Your task to perform on an android device: change keyboard looks Image 0: 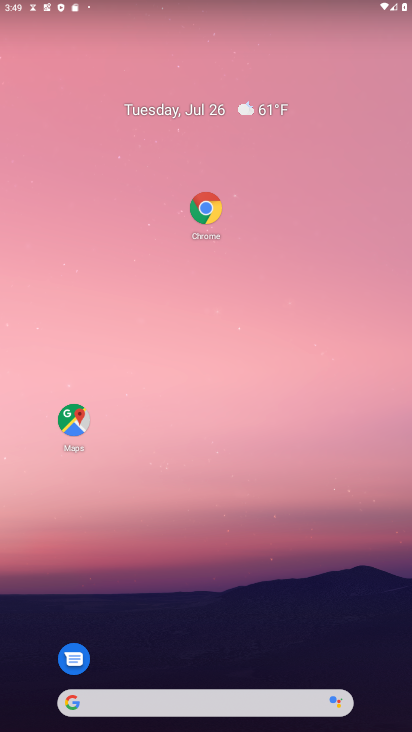
Step 0: drag from (189, 376) to (184, 57)
Your task to perform on an android device: change keyboard looks Image 1: 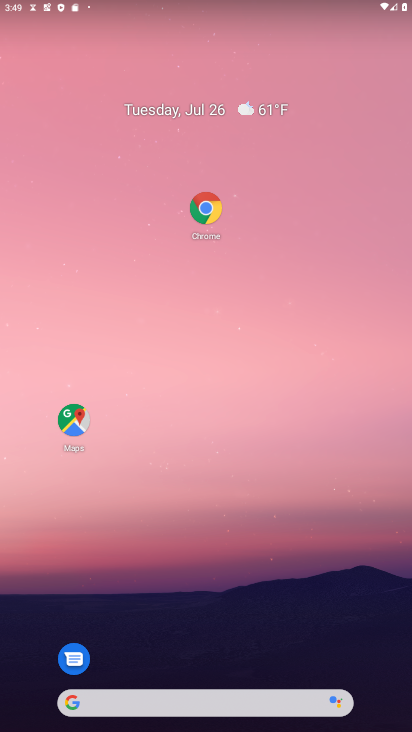
Step 1: drag from (175, 586) to (167, 144)
Your task to perform on an android device: change keyboard looks Image 2: 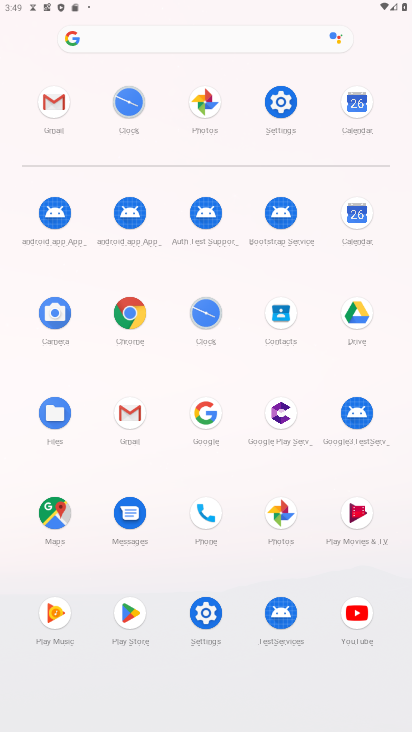
Step 2: click (277, 106)
Your task to perform on an android device: change keyboard looks Image 3: 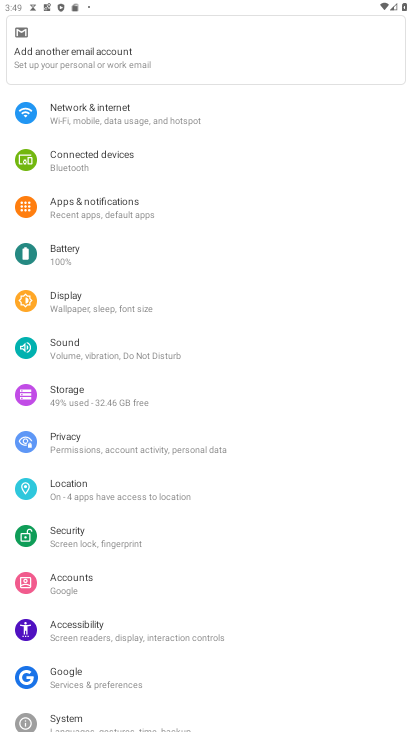
Step 3: click (3, 475)
Your task to perform on an android device: change keyboard looks Image 4: 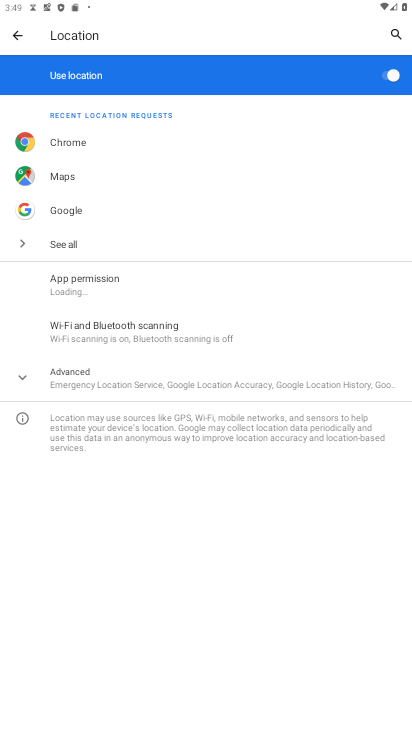
Step 4: click (25, 46)
Your task to perform on an android device: change keyboard looks Image 5: 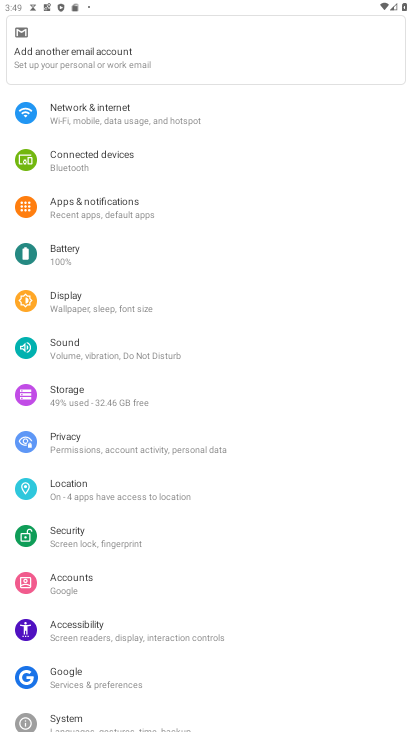
Step 5: click (65, 705)
Your task to perform on an android device: change keyboard looks Image 6: 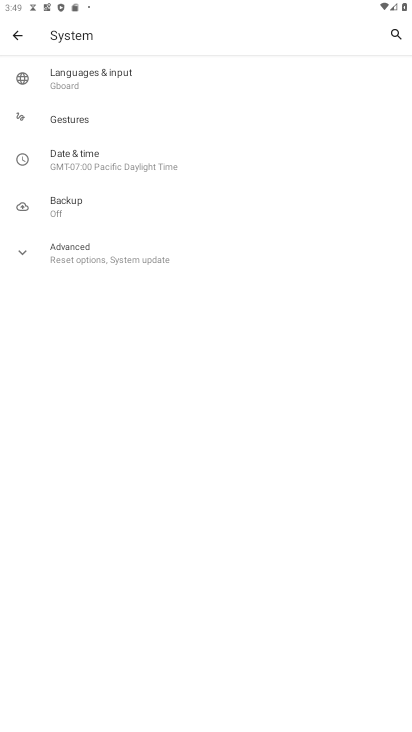
Step 6: click (20, 31)
Your task to perform on an android device: change keyboard looks Image 7: 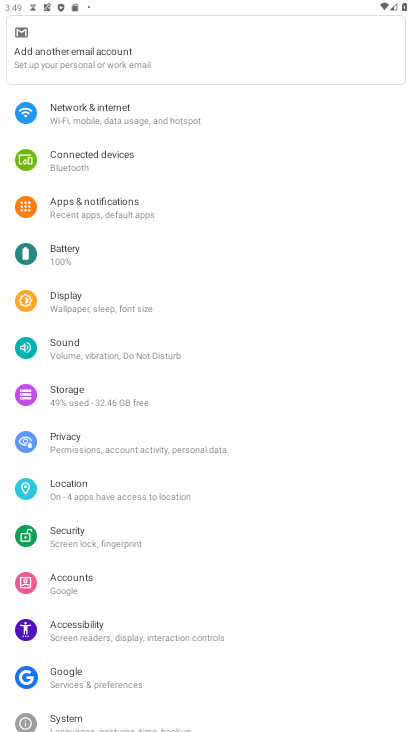
Step 7: click (131, 672)
Your task to perform on an android device: change keyboard looks Image 8: 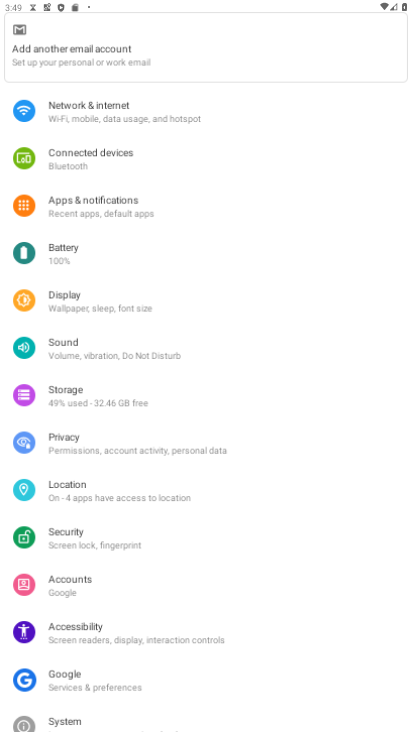
Step 8: drag from (128, 652) to (115, 164)
Your task to perform on an android device: change keyboard looks Image 9: 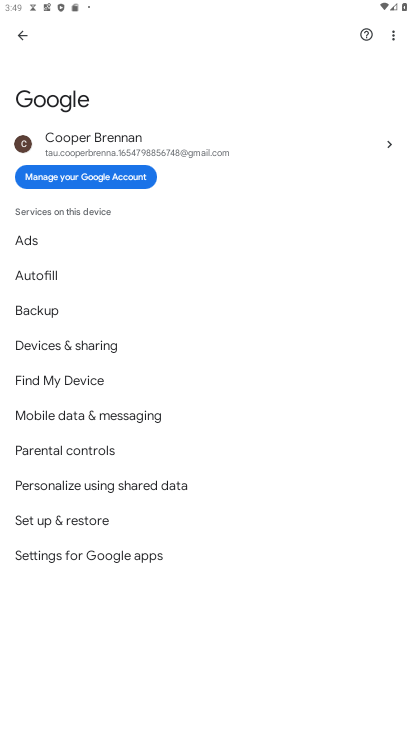
Step 9: click (26, 29)
Your task to perform on an android device: change keyboard looks Image 10: 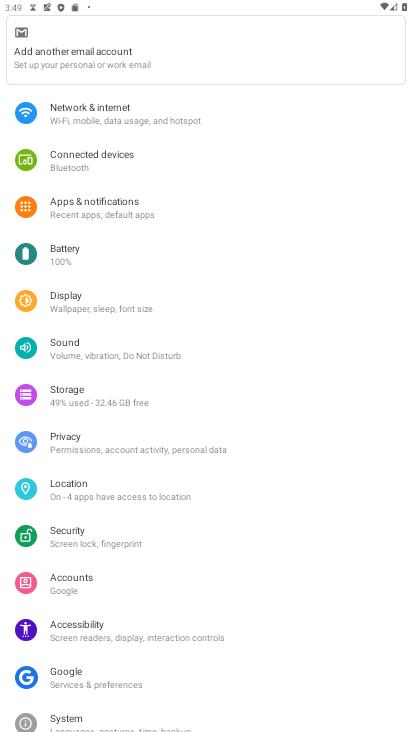
Step 10: click (52, 715)
Your task to perform on an android device: change keyboard looks Image 11: 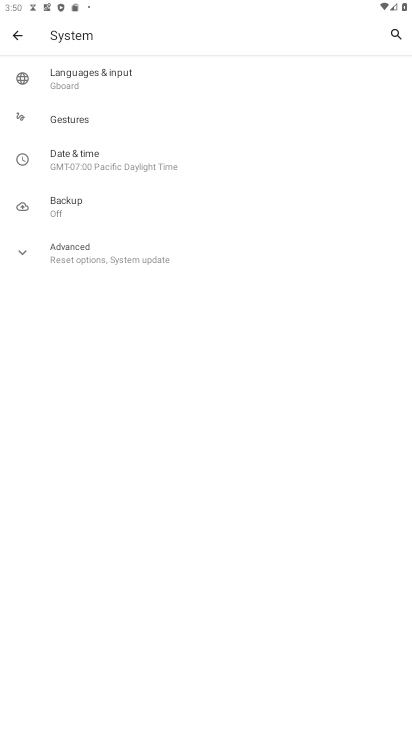
Step 11: click (17, 20)
Your task to perform on an android device: change keyboard looks Image 12: 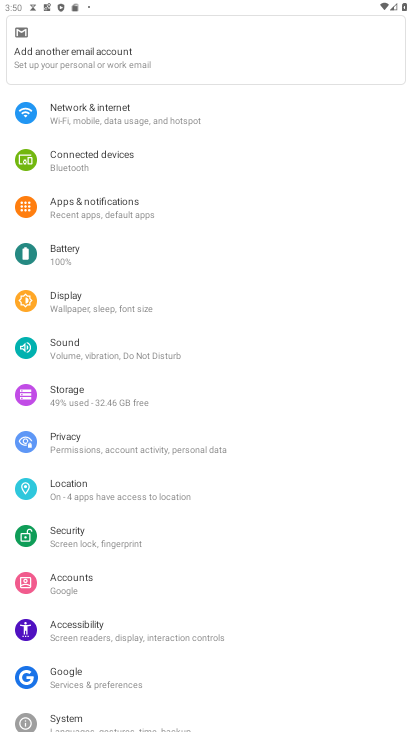
Step 12: drag from (128, 670) to (133, 238)
Your task to perform on an android device: change keyboard looks Image 13: 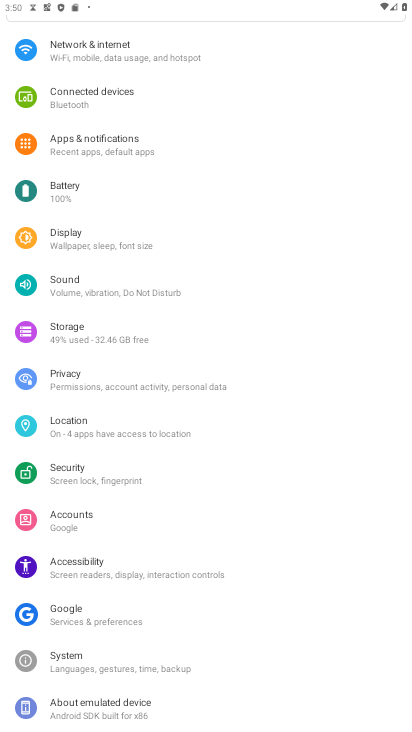
Step 13: click (62, 664)
Your task to perform on an android device: change keyboard looks Image 14: 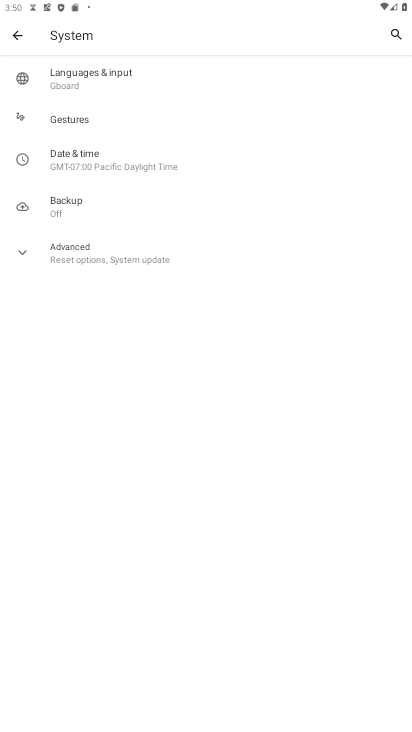
Step 14: click (114, 83)
Your task to perform on an android device: change keyboard looks Image 15: 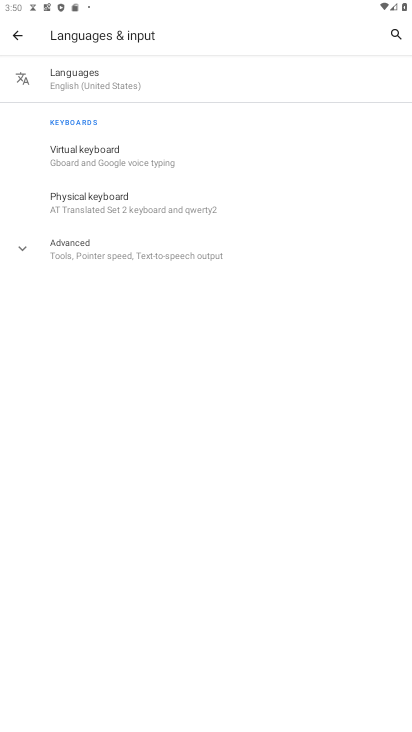
Step 15: click (84, 150)
Your task to perform on an android device: change keyboard looks Image 16: 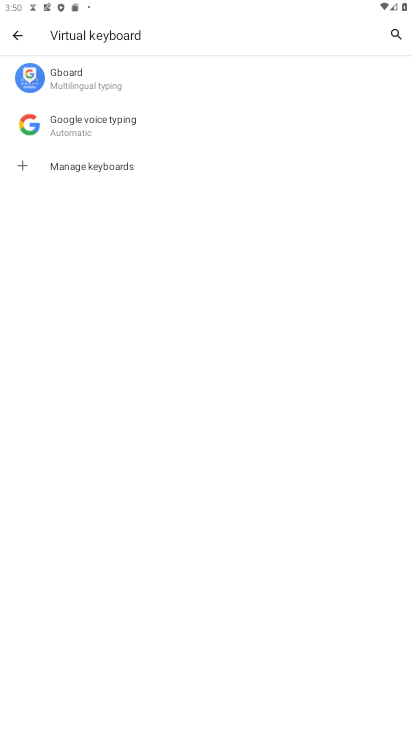
Step 16: click (69, 73)
Your task to perform on an android device: change keyboard looks Image 17: 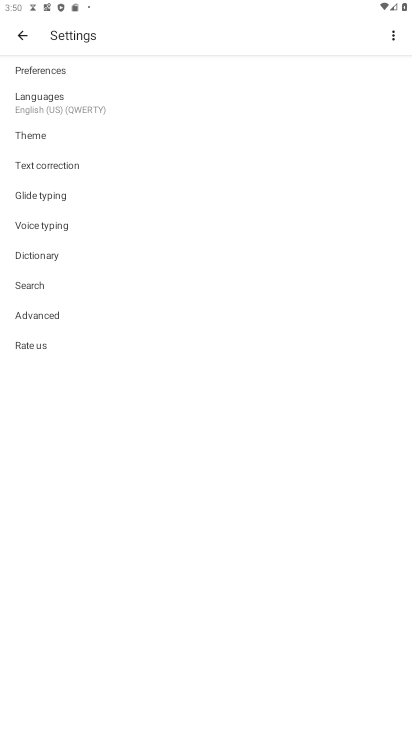
Step 17: click (34, 103)
Your task to perform on an android device: change keyboard looks Image 18: 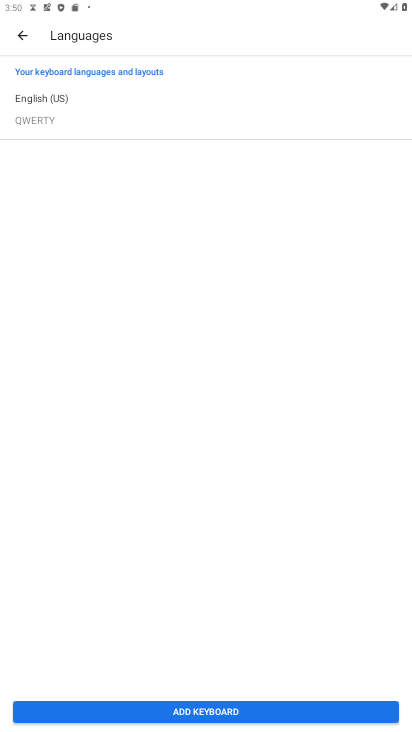
Step 18: click (26, 110)
Your task to perform on an android device: change keyboard looks Image 19: 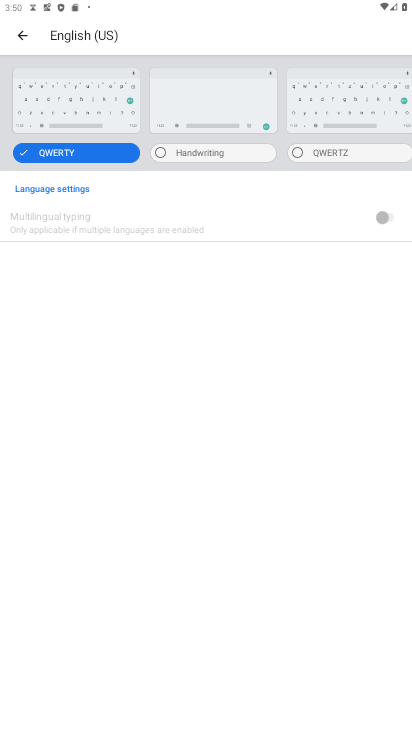
Step 19: click (170, 154)
Your task to perform on an android device: change keyboard looks Image 20: 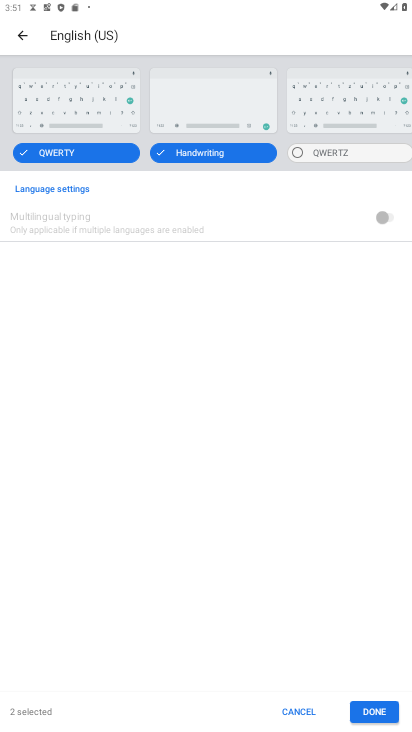
Step 20: click (383, 699)
Your task to perform on an android device: change keyboard looks Image 21: 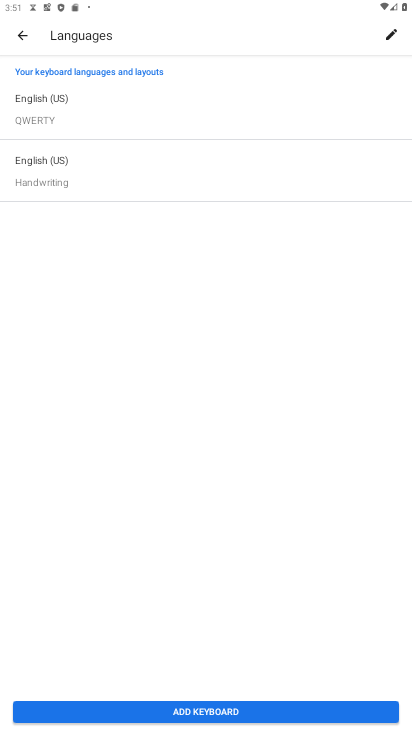
Step 21: click (191, 712)
Your task to perform on an android device: change keyboard looks Image 22: 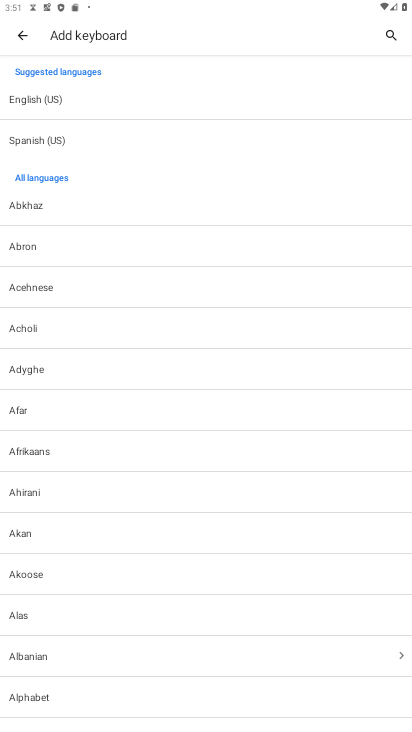
Step 22: task complete